Your task to perform on an android device: Clear all items from cart on newegg.com. Search for bose soundlink on newegg.com, select the first entry, add it to the cart, then select checkout. Image 0: 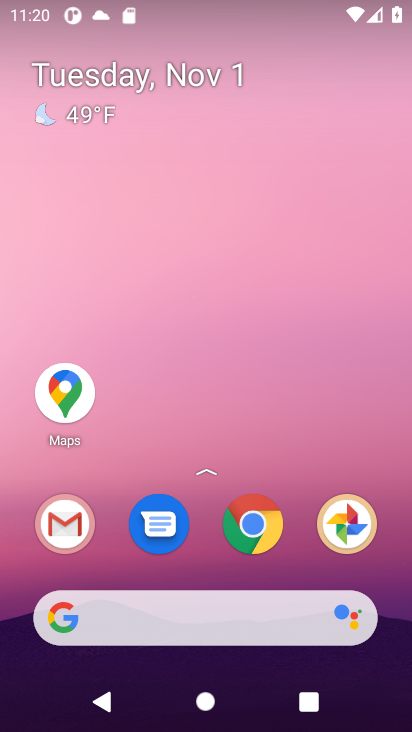
Step 0: press home button
Your task to perform on an android device: Clear all items from cart on newegg.com. Search for bose soundlink on newegg.com, select the first entry, add it to the cart, then select checkout. Image 1: 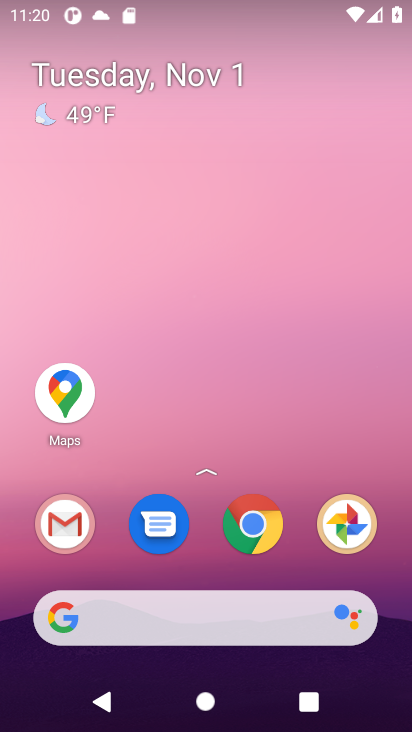
Step 1: click (90, 615)
Your task to perform on an android device: Clear all items from cart on newegg.com. Search for bose soundlink on newegg.com, select the first entry, add it to the cart, then select checkout. Image 2: 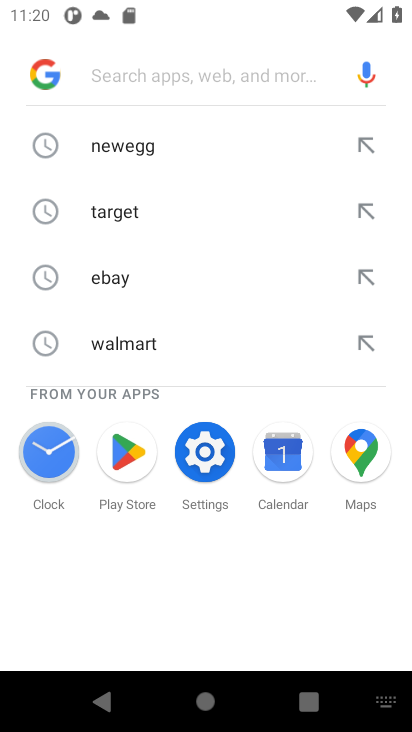
Step 2: type "newegg.com"
Your task to perform on an android device: Clear all items from cart on newegg.com. Search for bose soundlink on newegg.com, select the first entry, add it to the cart, then select checkout. Image 3: 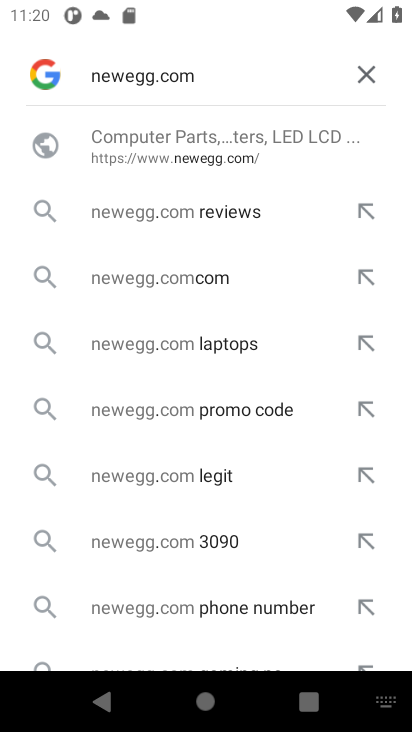
Step 3: press enter
Your task to perform on an android device: Clear all items from cart on newegg.com. Search for bose soundlink on newegg.com, select the first entry, add it to the cart, then select checkout. Image 4: 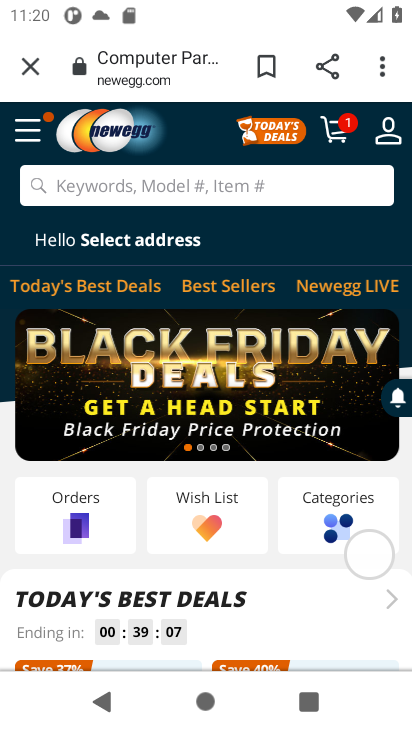
Step 4: click (339, 131)
Your task to perform on an android device: Clear all items from cart on newegg.com. Search for bose soundlink on newegg.com, select the first entry, add it to the cart, then select checkout. Image 5: 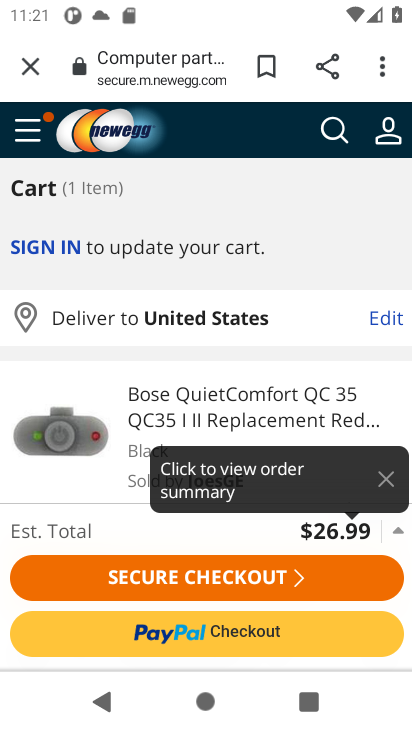
Step 5: click (379, 478)
Your task to perform on an android device: Clear all items from cart on newegg.com. Search for bose soundlink on newegg.com, select the first entry, add it to the cart, then select checkout. Image 6: 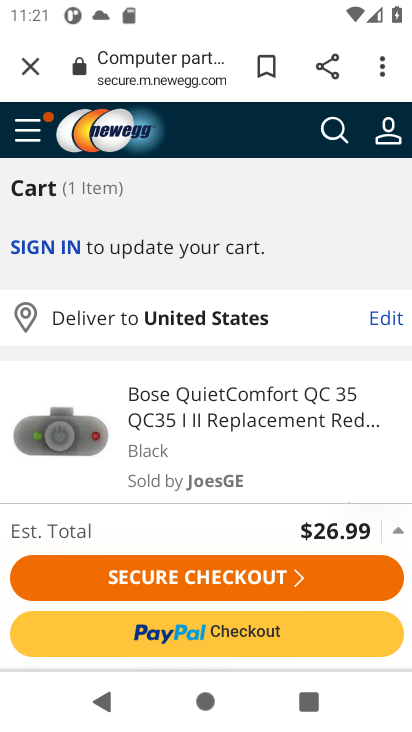
Step 6: drag from (233, 456) to (223, 274)
Your task to perform on an android device: Clear all items from cart on newegg.com. Search for bose soundlink on newegg.com, select the first entry, add it to the cart, then select checkout. Image 7: 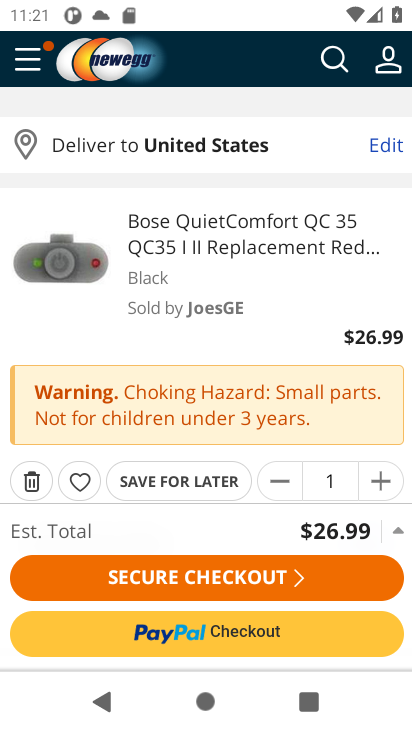
Step 7: click (31, 484)
Your task to perform on an android device: Clear all items from cart on newegg.com. Search for bose soundlink on newegg.com, select the first entry, add it to the cart, then select checkout. Image 8: 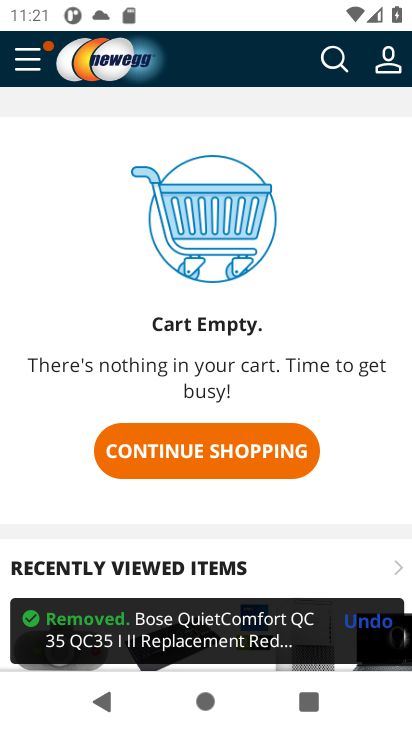
Step 8: click (337, 59)
Your task to perform on an android device: Clear all items from cart on newegg.com. Search for bose soundlink on newegg.com, select the first entry, add it to the cart, then select checkout. Image 9: 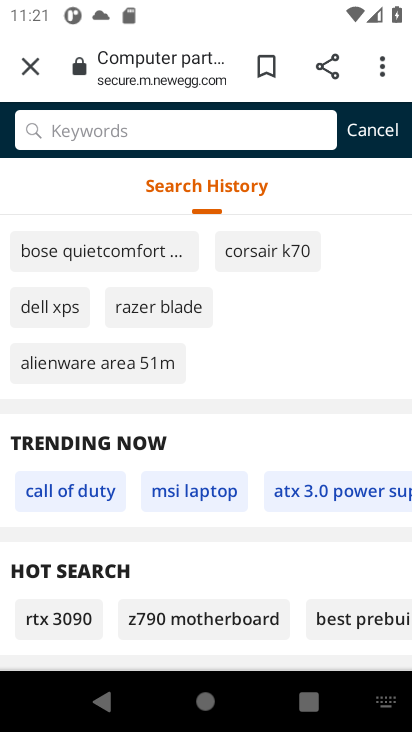
Step 9: type "bose soundlink"
Your task to perform on an android device: Clear all items from cart on newegg.com. Search for bose soundlink on newegg.com, select the first entry, add it to the cart, then select checkout. Image 10: 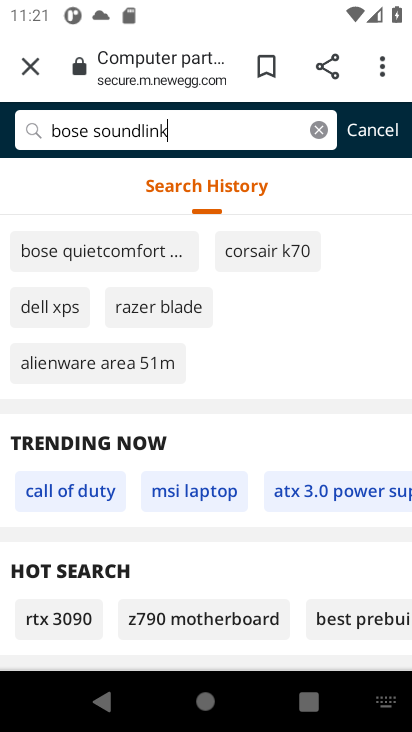
Step 10: press enter
Your task to perform on an android device: Clear all items from cart on newegg.com. Search for bose soundlink on newegg.com, select the first entry, add it to the cart, then select checkout. Image 11: 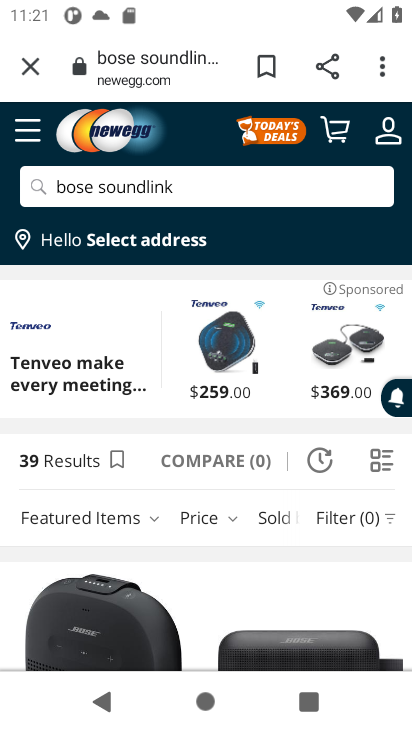
Step 11: drag from (178, 583) to (171, 302)
Your task to perform on an android device: Clear all items from cart on newegg.com. Search for bose soundlink on newegg.com, select the first entry, add it to the cart, then select checkout. Image 12: 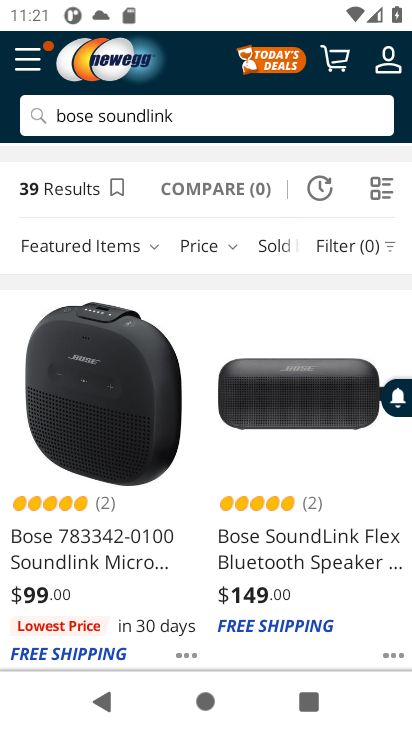
Step 12: drag from (162, 567) to (160, 343)
Your task to perform on an android device: Clear all items from cart on newegg.com. Search for bose soundlink on newegg.com, select the first entry, add it to the cart, then select checkout. Image 13: 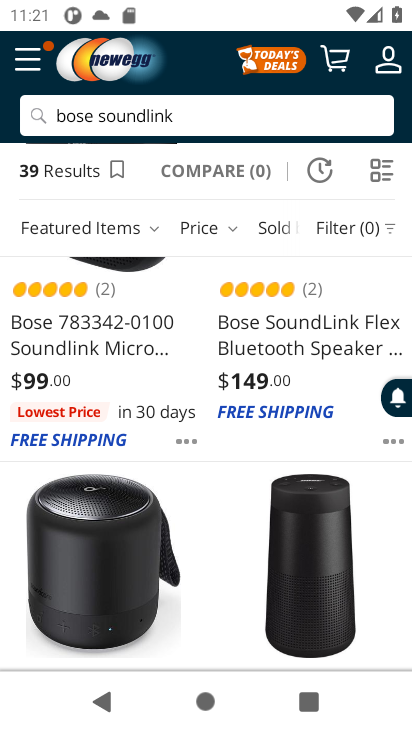
Step 13: click (303, 335)
Your task to perform on an android device: Clear all items from cart on newegg.com. Search for bose soundlink on newegg.com, select the first entry, add it to the cart, then select checkout. Image 14: 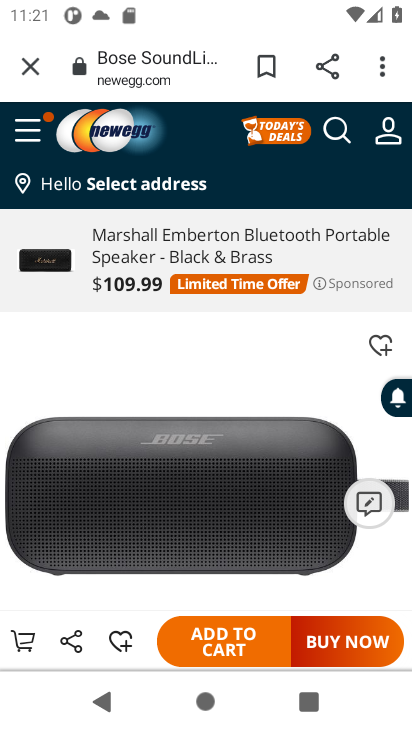
Step 14: click (212, 648)
Your task to perform on an android device: Clear all items from cart on newegg.com. Search for bose soundlink on newegg.com, select the first entry, add it to the cart, then select checkout. Image 15: 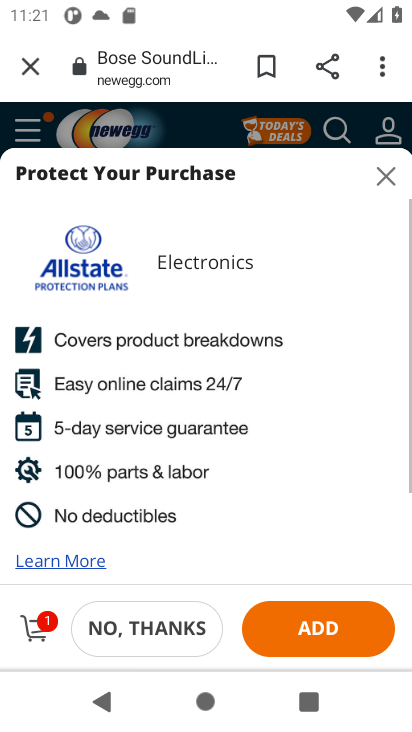
Step 15: click (139, 627)
Your task to perform on an android device: Clear all items from cart on newegg.com. Search for bose soundlink on newegg.com, select the first entry, add it to the cart, then select checkout. Image 16: 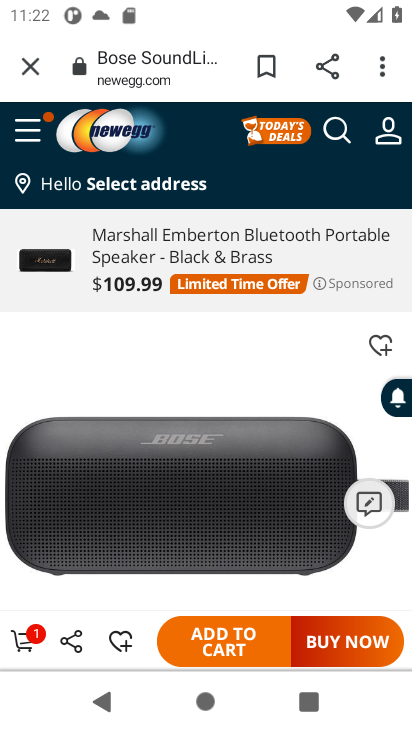
Step 16: click (22, 640)
Your task to perform on an android device: Clear all items from cart on newegg.com. Search for bose soundlink on newegg.com, select the first entry, add it to the cart, then select checkout. Image 17: 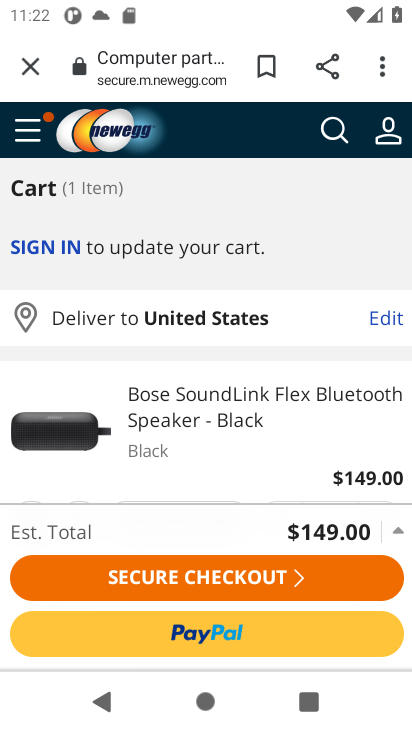
Step 17: click (222, 580)
Your task to perform on an android device: Clear all items from cart on newegg.com. Search for bose soundlink on newegg.com, select the first entry, add it to the cart, then select checkout. Image 18: 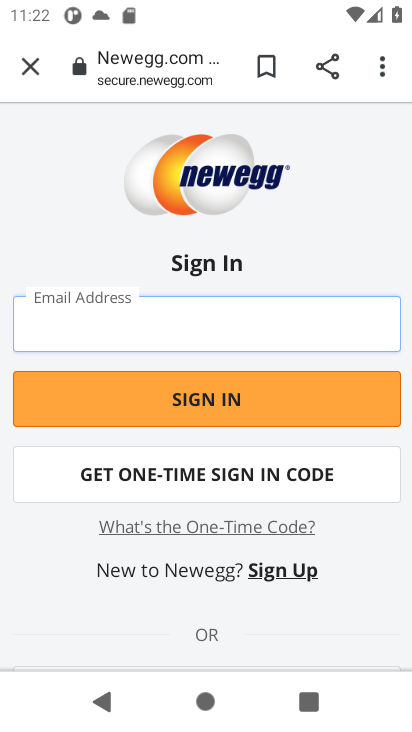
Step 18: task complete